Your task to perform on an android device: Open accessibility settings Image 0: 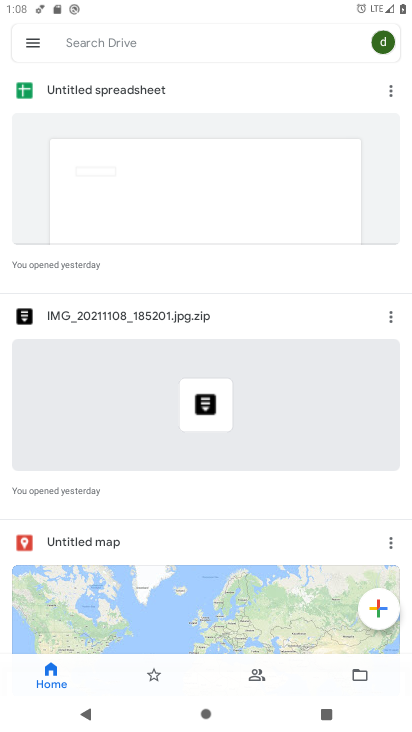
Step 0: press home button
Your task to perform on an android device: Open accessibility settings Image 1: 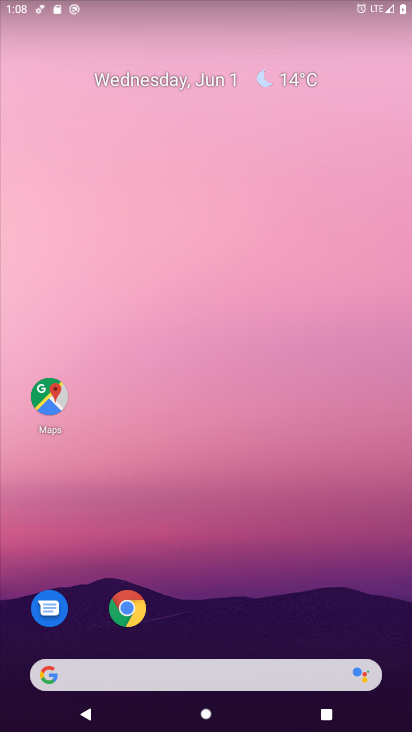
Step 1: drag from (245, 609) to (321, 158)
Your task to perform on an android device: Open accessibility settings Image 2: 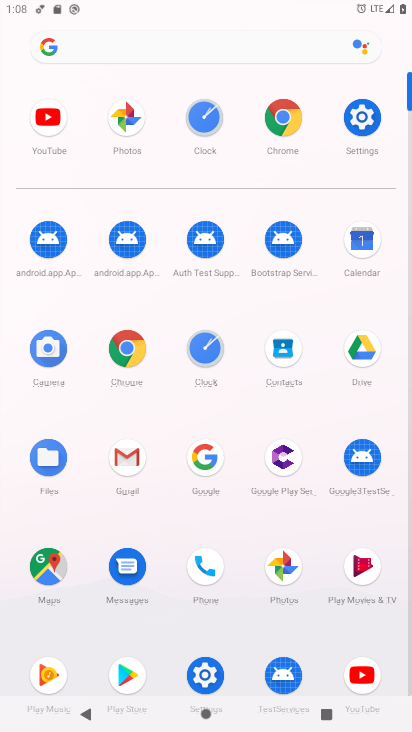
Step 2: click (364, 114)
Your task to perform on an android device: Open accessibility settings Image 3: 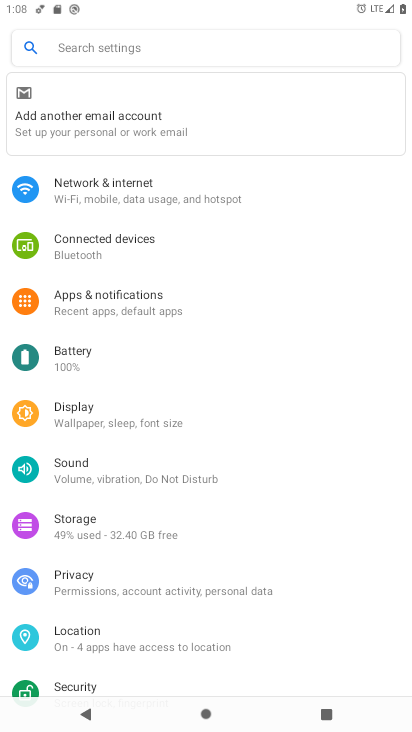
Step 3: drag from (157, 572) to (208, 382)
Your task to perform on an android device: Open accessibility settings Image 4: 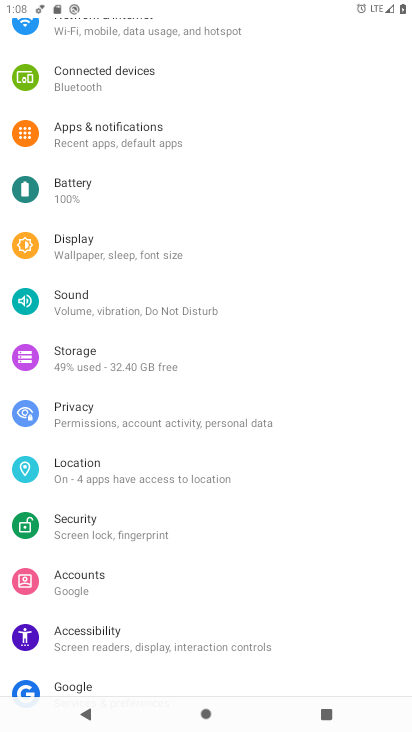
Step 4: click (108, 641)
Your task to perform on an android device: Open accessibility settings Image 5: 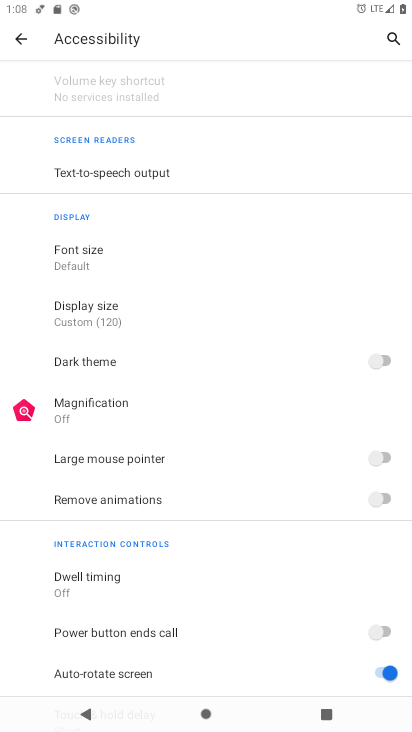
Step 5: task complete